Your task to perform on an android device: Open battery settings Image 0: 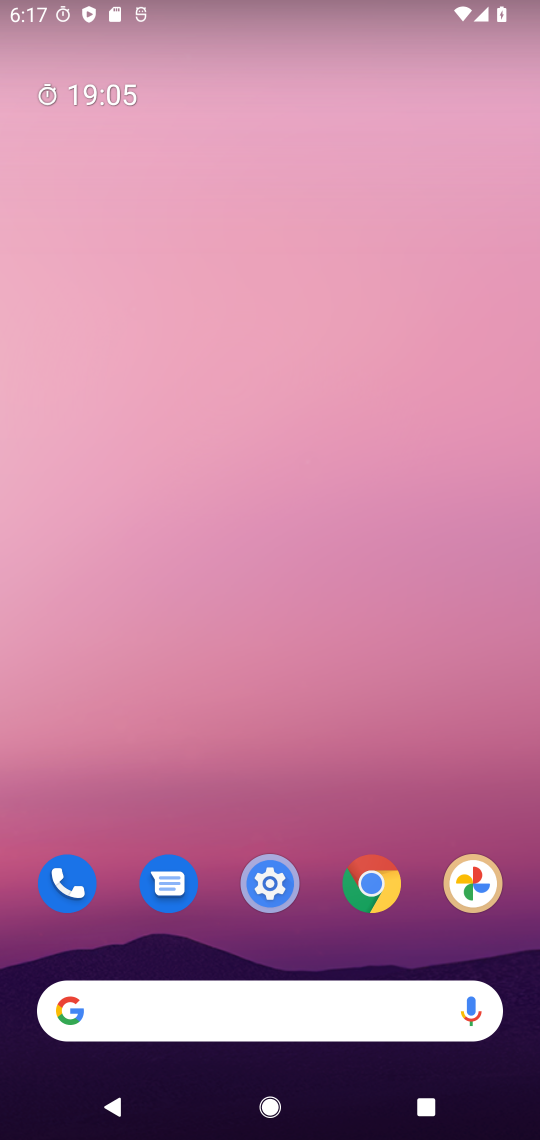
Step 0: click (276, 879)
Your task to perform on an android device: Open battery settings Image 1: 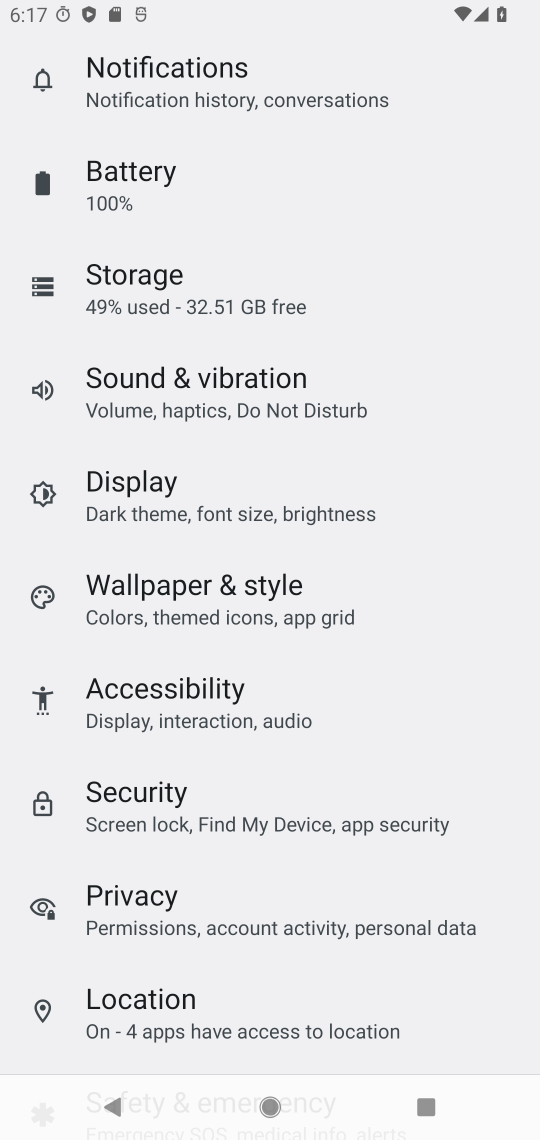
Step 1: drag from (194, 345) to (230, 548)
Your task to perform on an android device: Open battery settings Image 2: 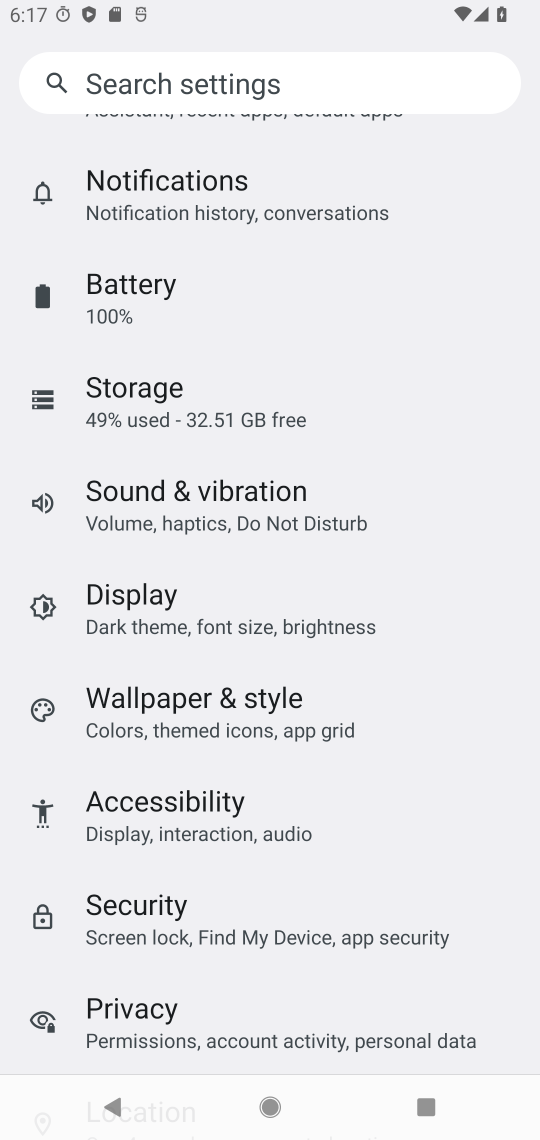
Step 2: click (160, 290)
Your task to perform on an android device: Open battery settings Image 3: 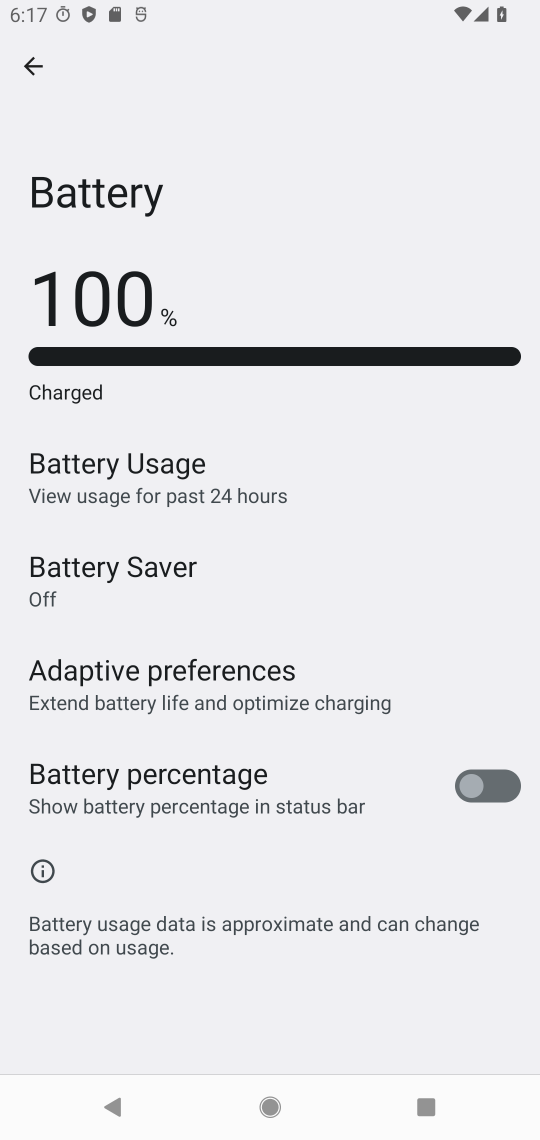
Step 3: task complete